Your task to perform on an android device: change the clock display to analog Image 0: 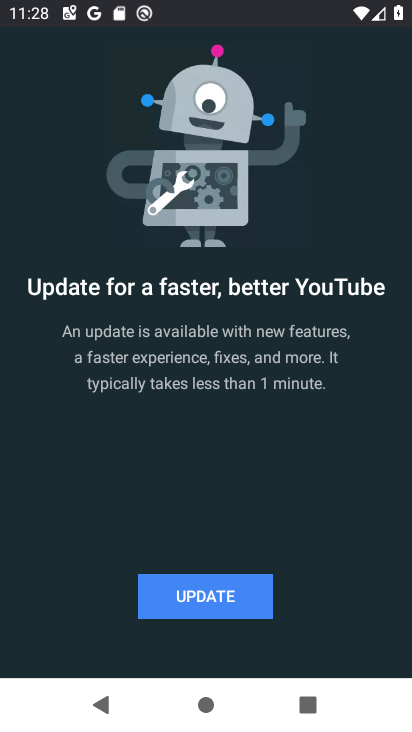
Step 0: press home button
Your task to perform on an android device: change the clock display to analog Image 1: 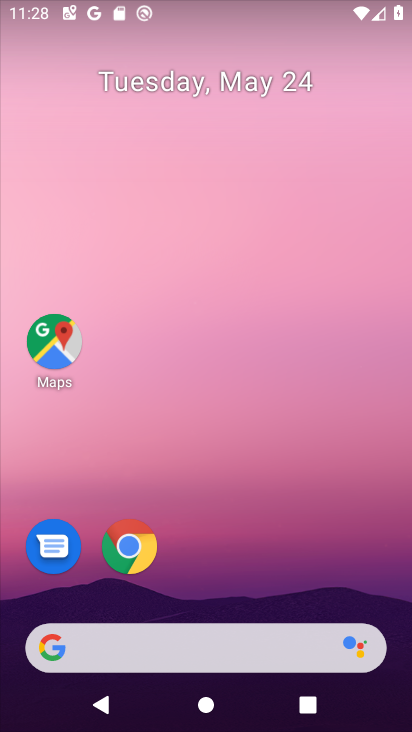
Step 1: drag from (215, 601) to (248, 283)
Your task to perform on an android device: change the clock display to analog Image 2: 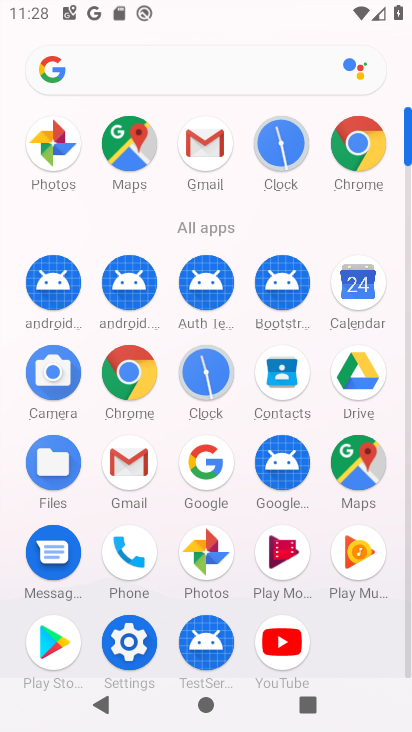
Step 2: click (202, 358)
Your task to perform on an android device: change the clock display to analog Image 3: 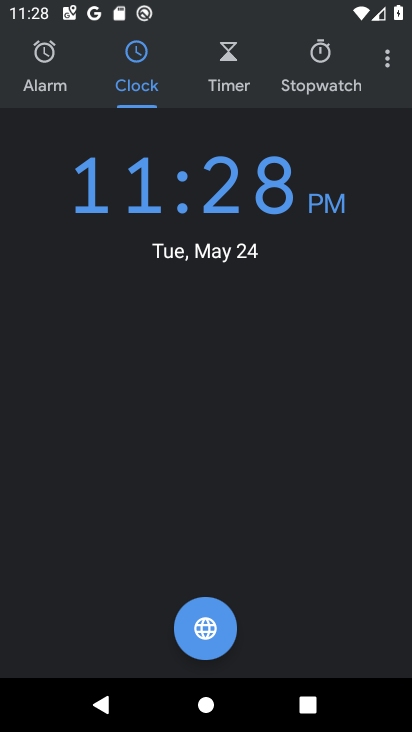
Step 3: click (383, 53)
Your task to perform on an android device: change the clock display to analog Image 4: 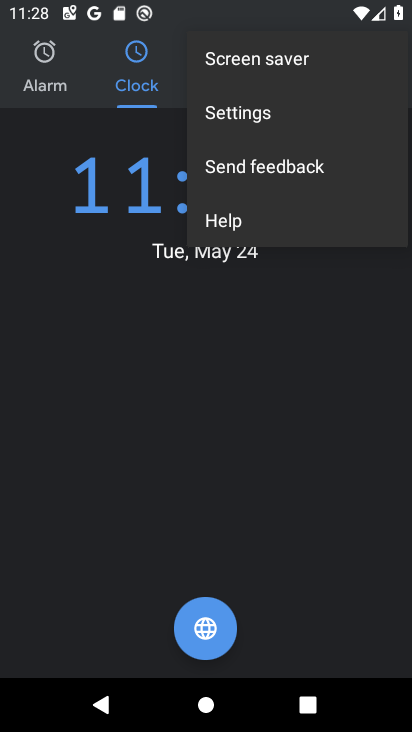
Step 4: click (236, 118)
Your task to perform on an android device: change the clock display to analog Image 5: 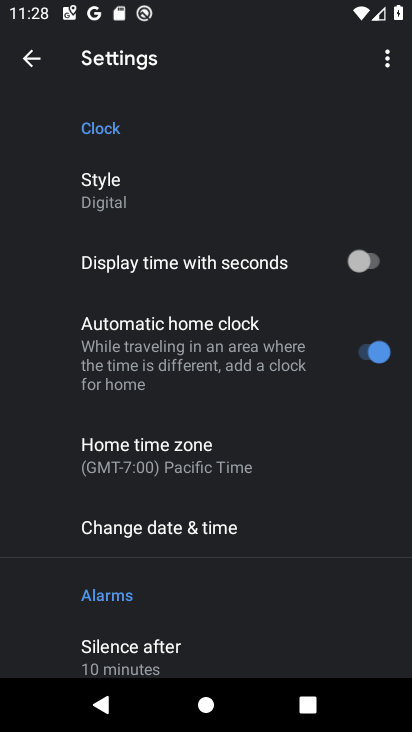
Step 5: click (179, 207)
Your task to perform on an android device: change the clock display to analog Image 6: 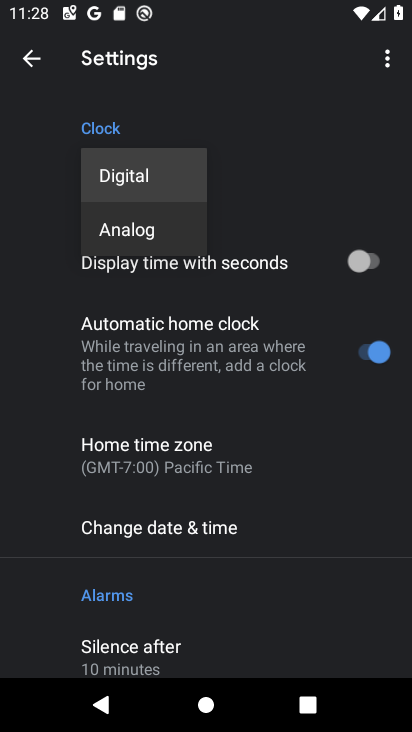
Step 6: click (139, 231)
Your task to perform on an android device: change the clock display to analog Image 7: 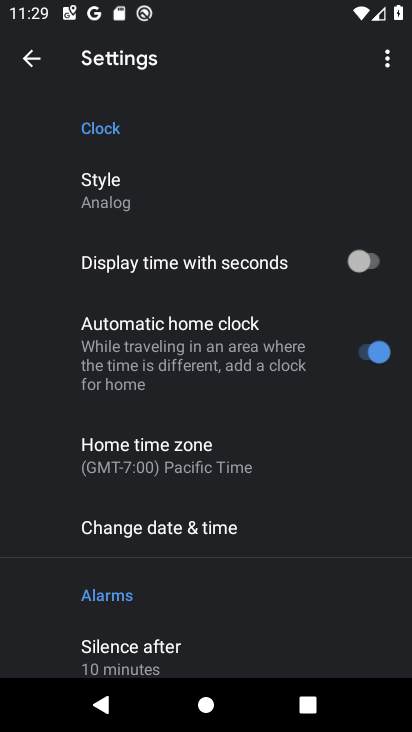
Step 7: task complete